Your task to perform on an android device: open chrome privacy settings Image 0: 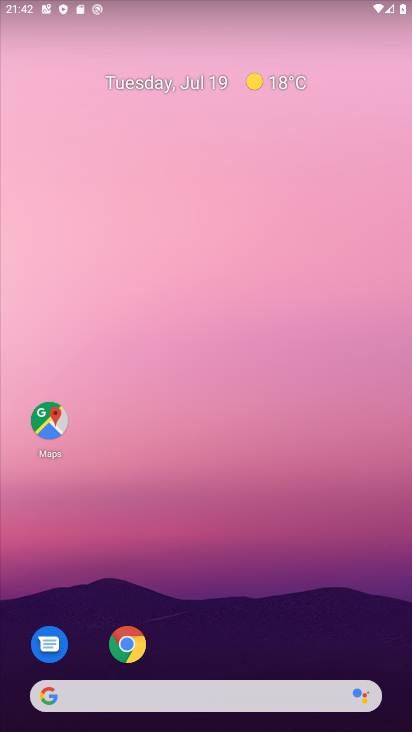
Step 0: drag from (218, 729) to (202, 270)
Your task to perform on an android device: open chrome privacy settings Image 1: 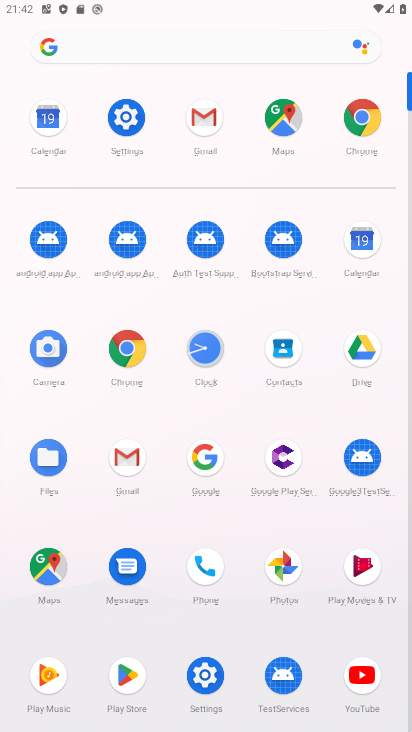
Step 1: click (131, 345)
Your task to perform on an android device: open chrome privacy settings Image 2: 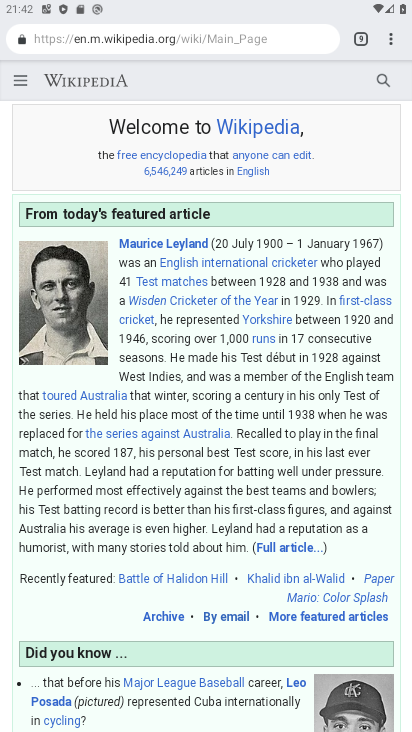
Step 2: click (390, 39)
Your task to perform on an android device: open chrome privacy settings Image 3: 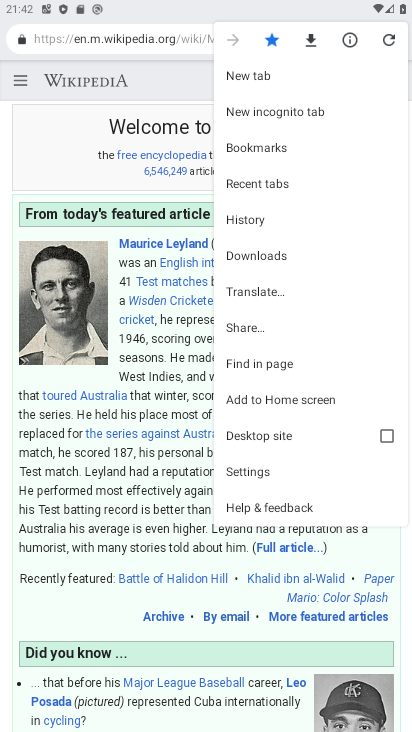
Step 3: click (249, 469)
Your task to perform on an android device: open chrome privacy settings Image 4: 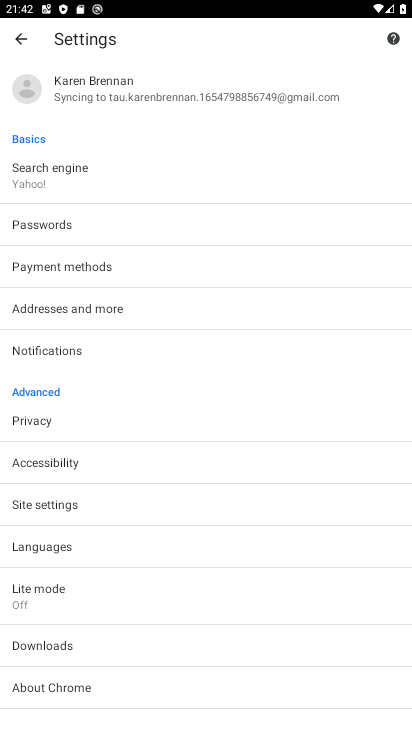
Step 4: click (29, 417)
Your task to perform on an android device: open chrome privacy settings Image 5: 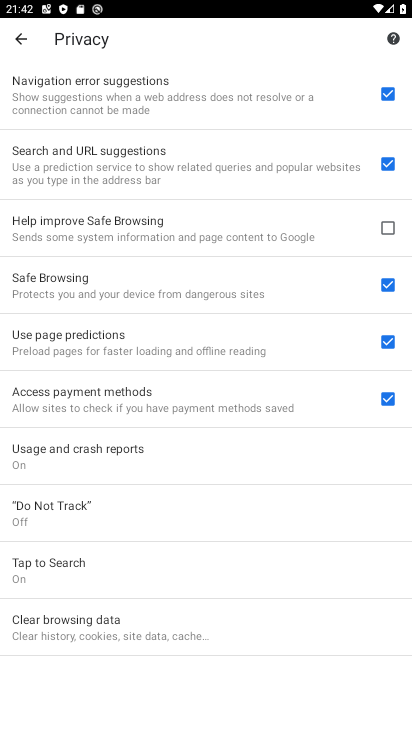
Step 5: task complete